Your task to perform on an android device: Open Chrome and go to the settings page Image 0: 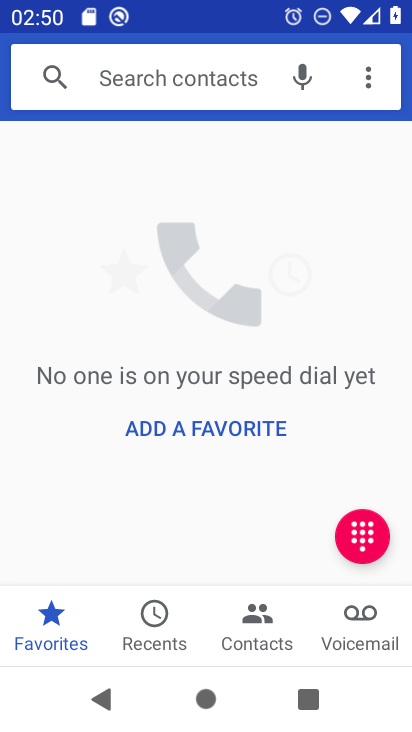
Step 0: press home button
Your task to perform on an android device: Open Chrome and go to the settings page Image 1: 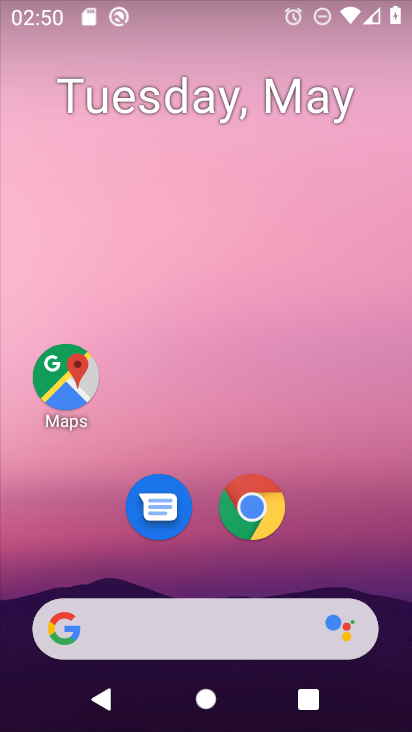
Step 1: click (243, 516)
Your task to perform on an android device: Open Chrome and go to the settings page Image 2: 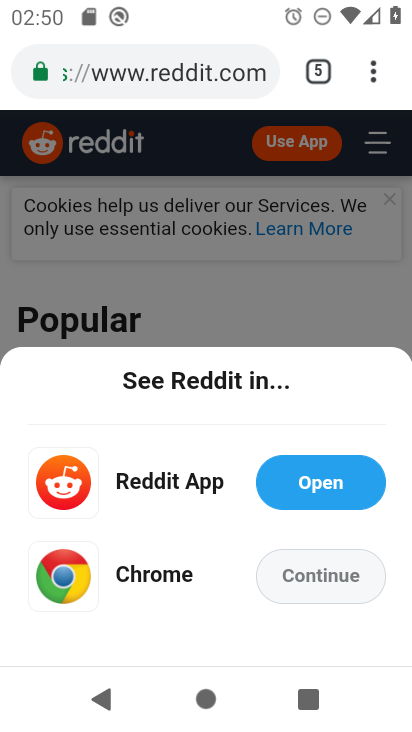
Step 2: click (367, 581)
Your task to perform on an android device: Open Chrome and go to the settings page Image 3: 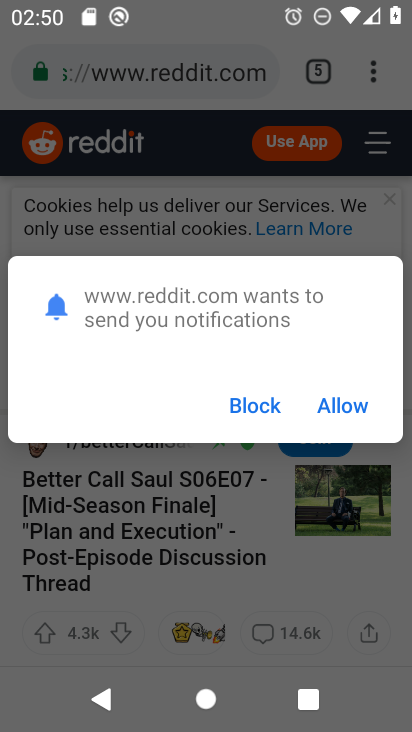
Step 3: click (349, 399)
Your task to perform on an android device: Open Chrome and go to the settings page Image 4: 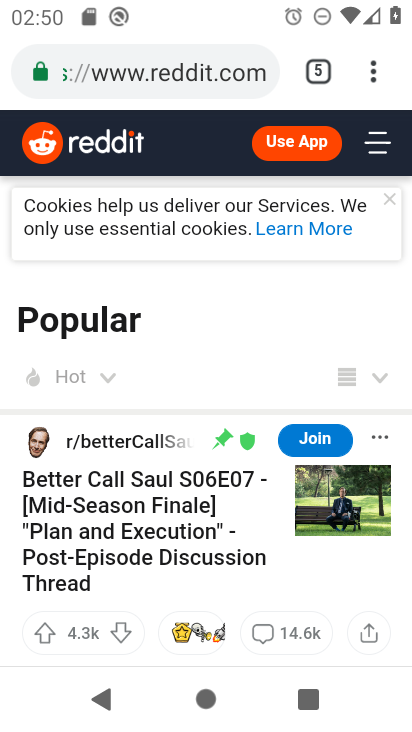
Step 4: task complete